Your task to perform on an android device: Open Google Chrome Image 0: 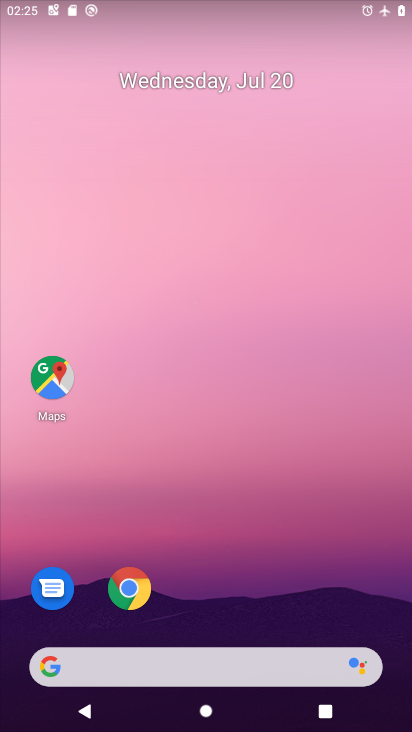
Step 0: drag from (211, 619) to (308, 61)
Your task to perform on an android device: Open Google Chrome Image 1: 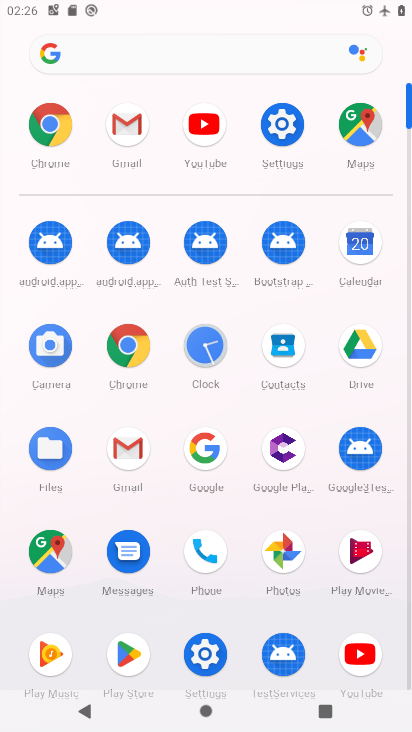
Step 1: click (197, 441)
Your task to perform on an android device: Open Google Chrome Image 2: 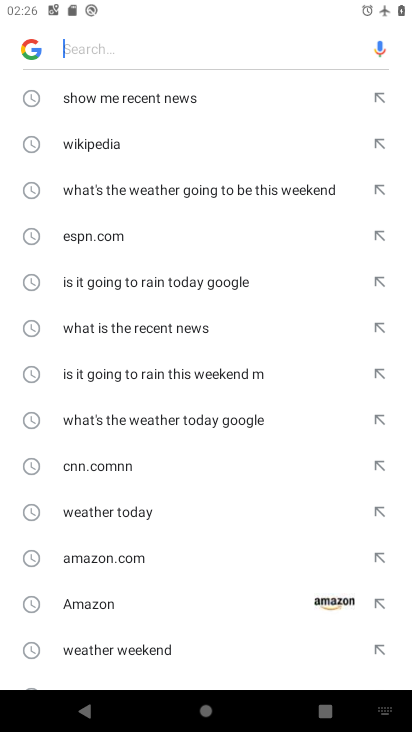
Step 2: task complete